Your task to perform on an android device: Open Android settings Image 0: 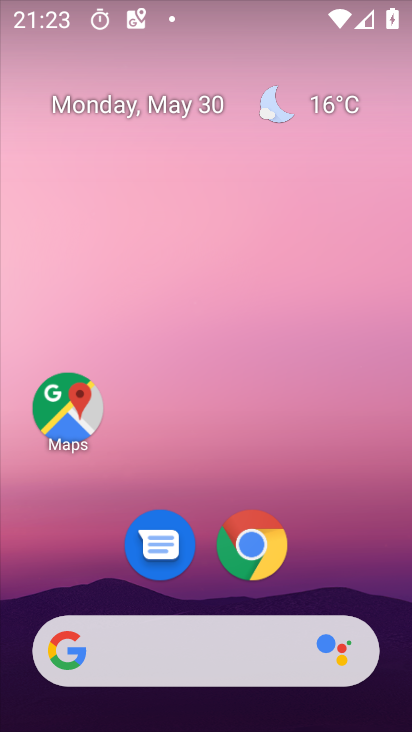
Step 0: drag from (322, 578) to (270, 180)
Your task to perform on an android device: Open Android settings Image 1: 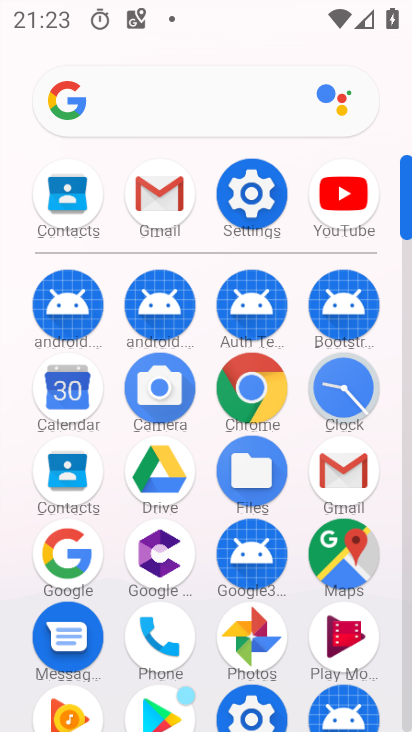
Step 1: click (247, 184)
Your task to perform on an android device: Open Android settings Image 2: 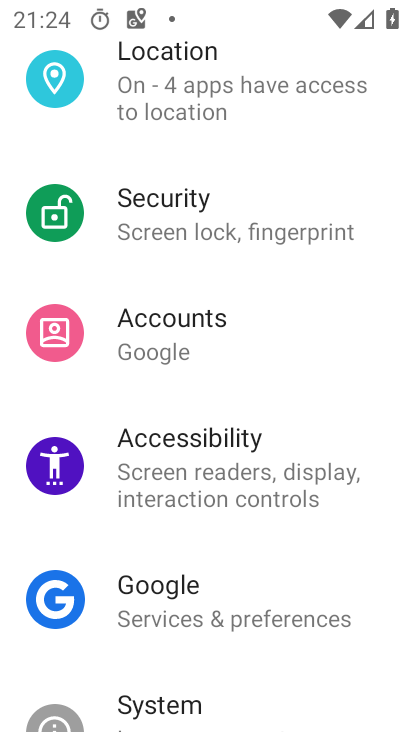
Step 2: drag from (285, 676) to (283, 363)
Your task to perform on an android device: Open Android settings Image 3: 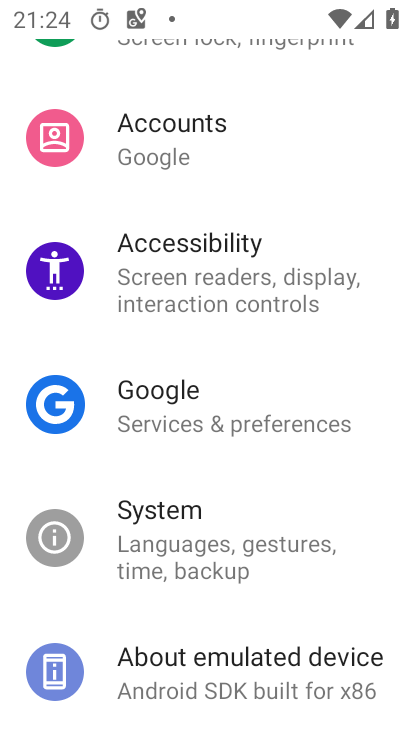
Step 3: click (249, 683)
Your task to perform on an android device: Open Android settings Image 4: 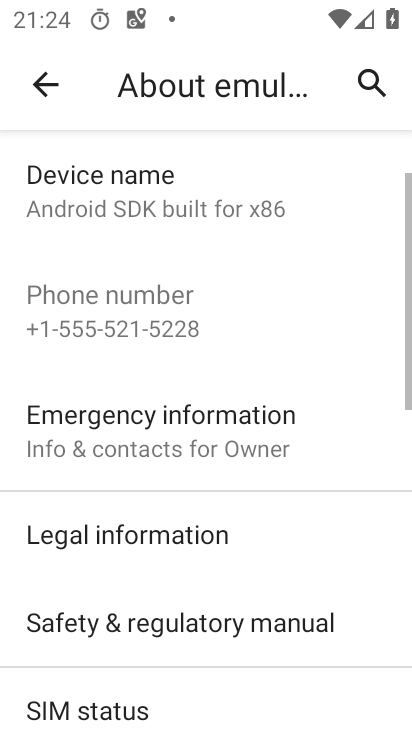
Step 4: drag from (258, 673) to (251, 238)
Your task to perform on an android device: Open Android settings Image 5: 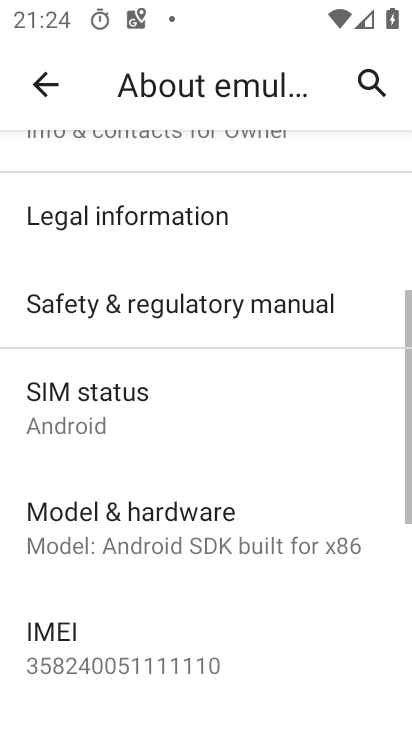
Step 5: drag from (218, 631) to (180, 362)
Your task to perform on an android device: Open Android settings Image 6: 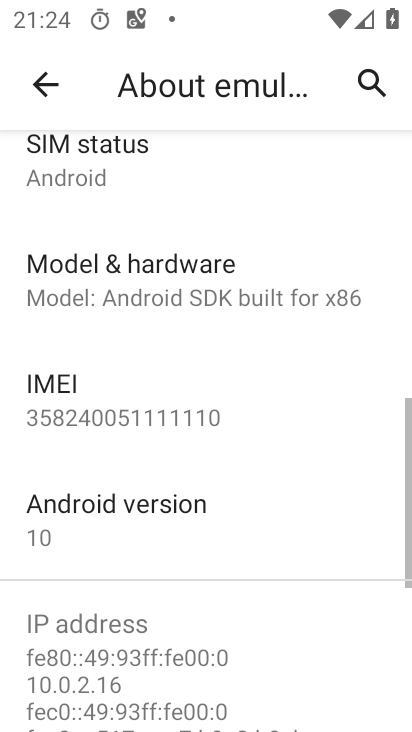
Step 6: drag from (301, 622) to (309, 341)
Your task to perform on an android device: Open Android settings Image 7: 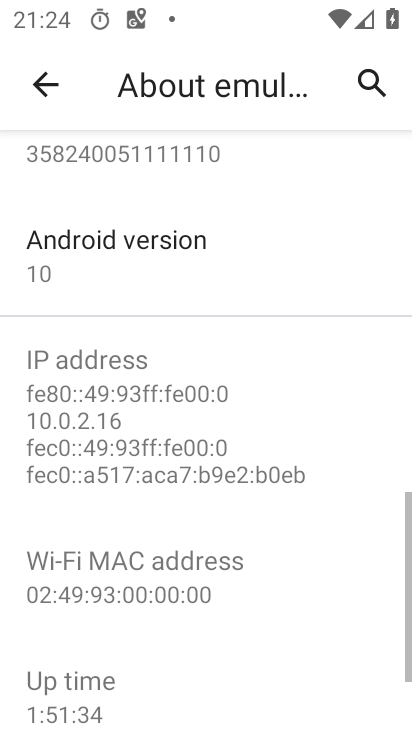
Step 7: click (201, 274)
Your task to perform on an android device: Open Android settings Image 8: 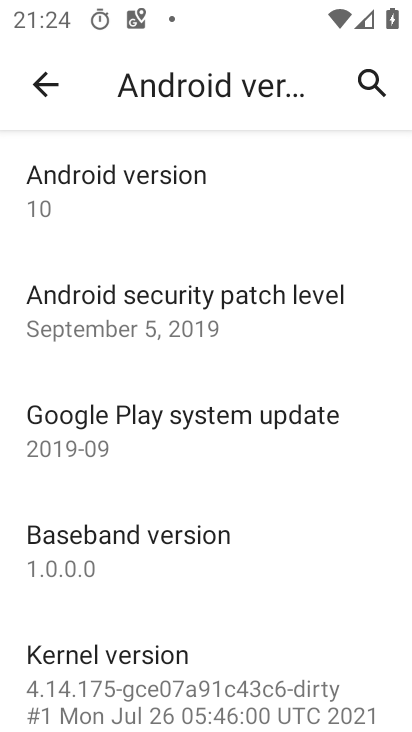
Step 8: task complete